Your task to perform on an android device: When is my next appointment? Image 0: 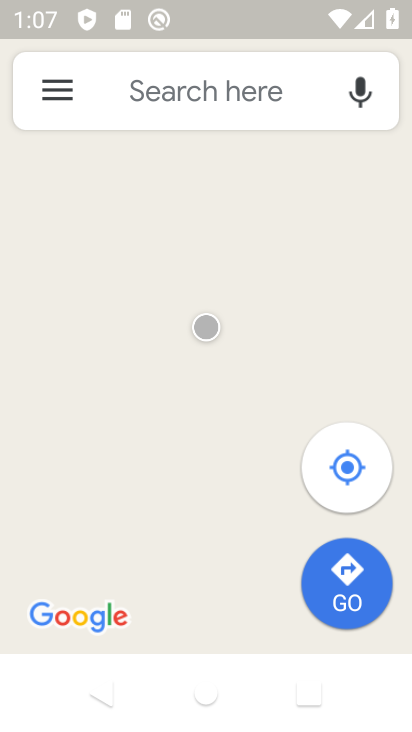
Step 0: press home button
Your task to perform on an android device: When is my next appointment? Image 1: 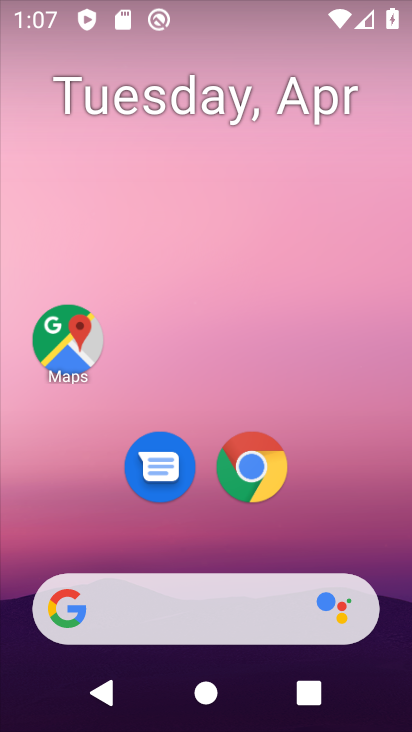
Step 1: drag from (383, 527) to (379, 91)
Your task to perform on an android device: When is my next appointment? Image 2: 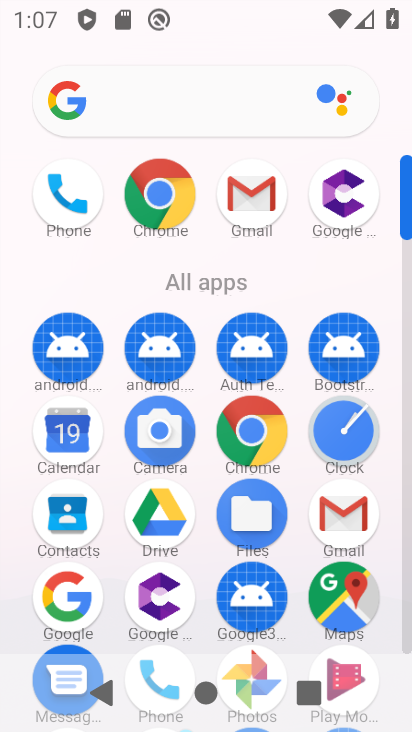
Step 2: click (79, 429)
Your task to perform on an android device: When is my next appointment? Image 3: 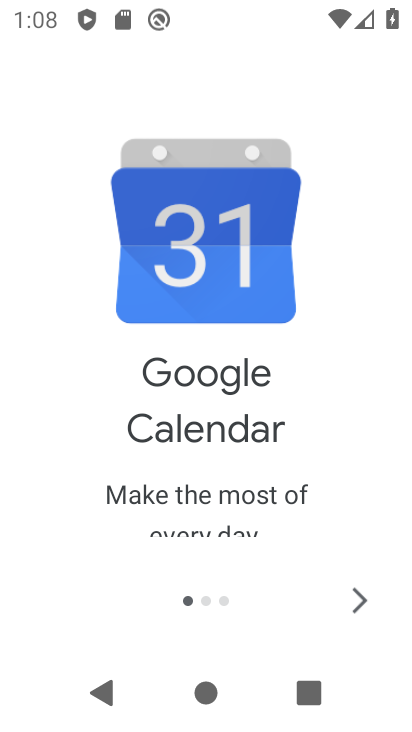
Step 3: click (352, 603)
Your task to perform on an android device: When is my next appointment? Image 4: 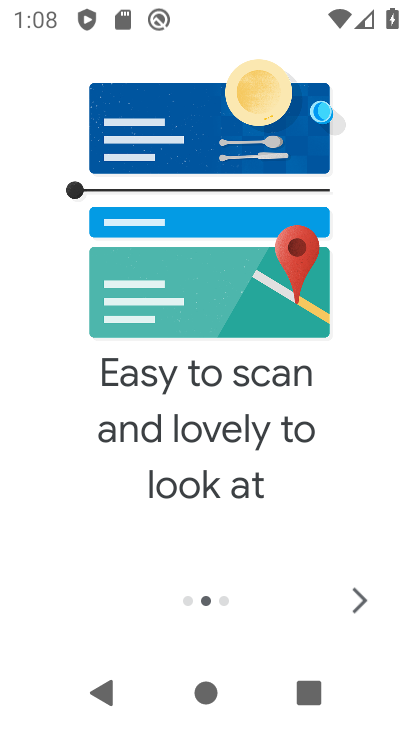
Step 4: click (353, 603)
Your task to perform on an android device: When is my next appointment? Image 5: 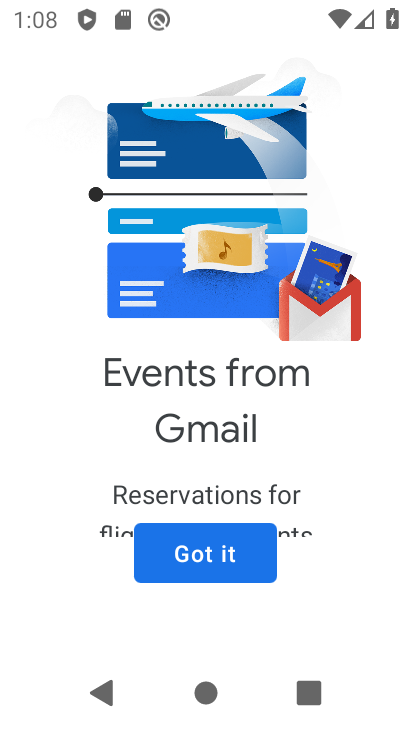
Step 5: click (238, 564)
Your task to perform on an android device: When is my next appointment? Image 6: 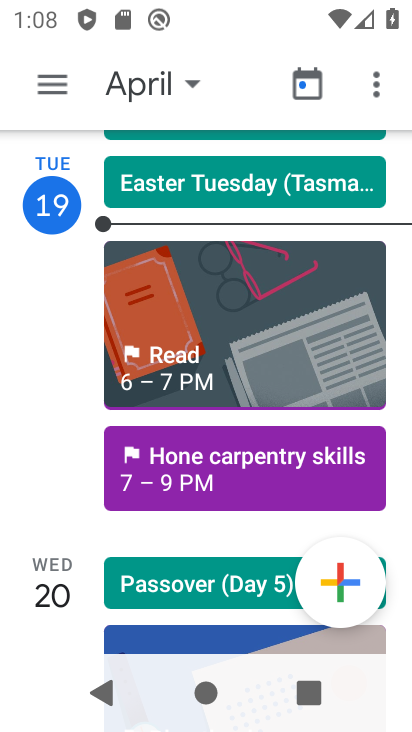
Step 6: drag from (70, 459) to (71, 282)
Your task to perform on an android device: When is my next appointment? Image 7: 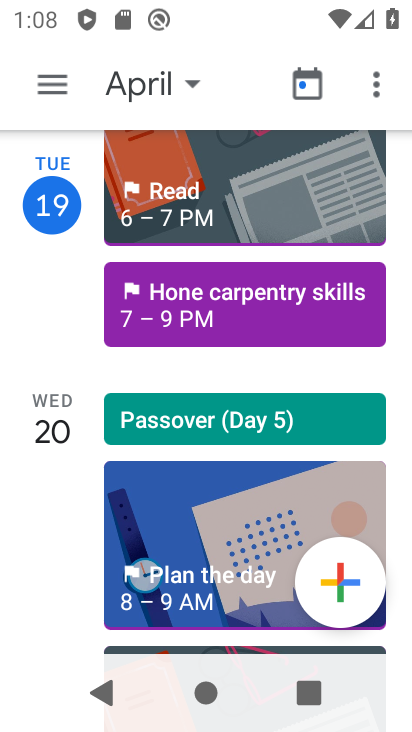
Step 7: drag from (77, 512) to (76, 330)
Your task to perform on an android device: When is my next appointment? Image 8: 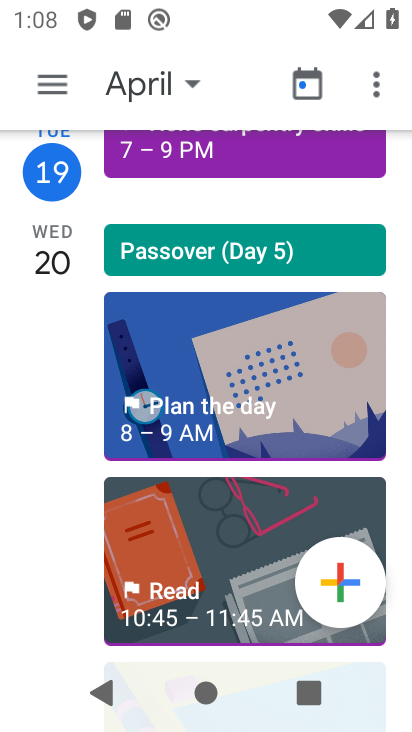
Step 8: click (47, 74)
Your task to perform on an android device: When is my next appointment? Image 9: 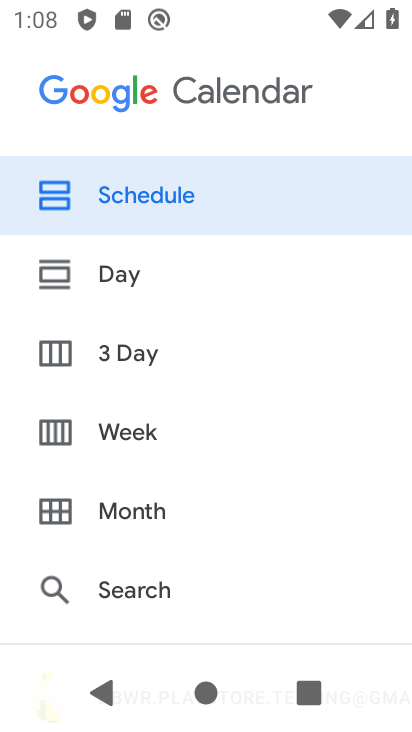
Step 9: task complete